Your task to perform on an android device: What's the weather today? Image 0: 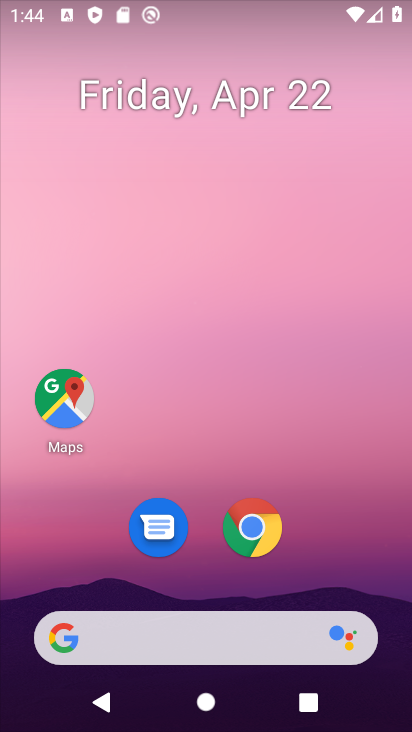
Step 0: click (60, 642)
Your task to perform on an android device: What's the weather today? Image 1: 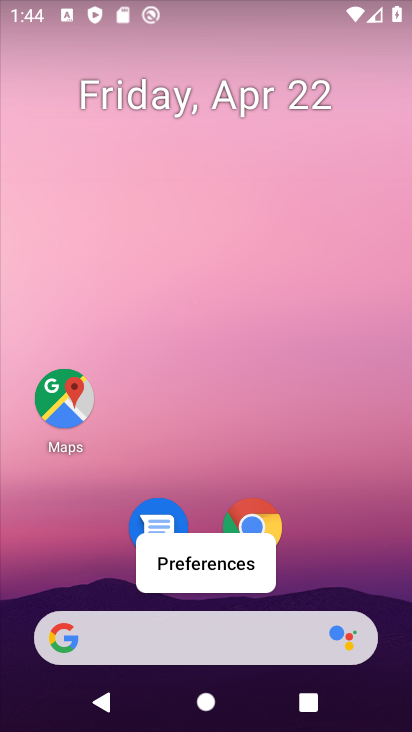
Step 1: click (59, 641)
Your task to perform on an android device: What's the weather today? Image 2: 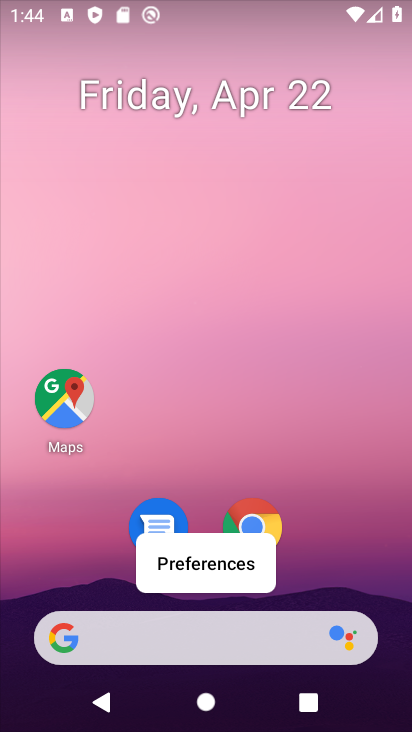
Step 2: click (66, 631)
Your task to perform on an android device: What's the weather today? Image 3: 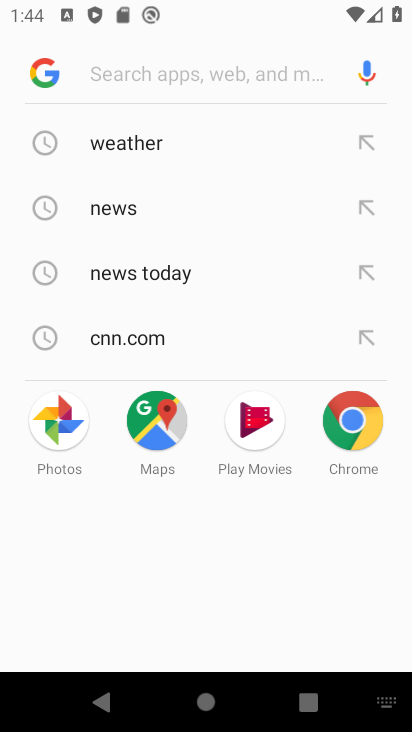
Step 3: click (37, 69)
Your task to perform on an android device: What's the weather today? Image 4: 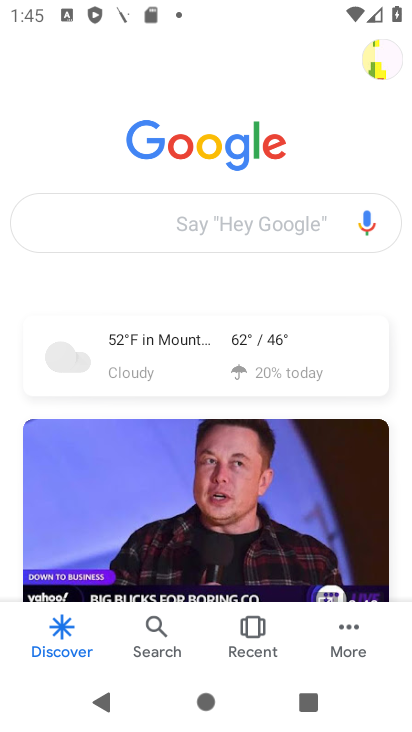
Step 4: click (192, 350)
Your task to perform on an android device: What's the weather today? Image 5: 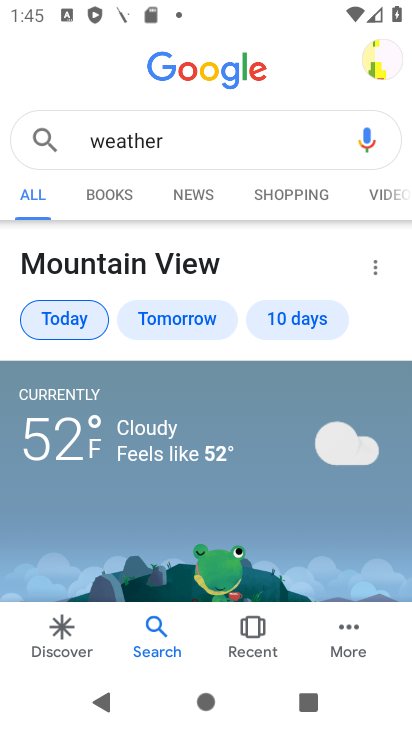
Step 5: task complete